Your task to perform on an android device: Turn off the flashlight Image 0: 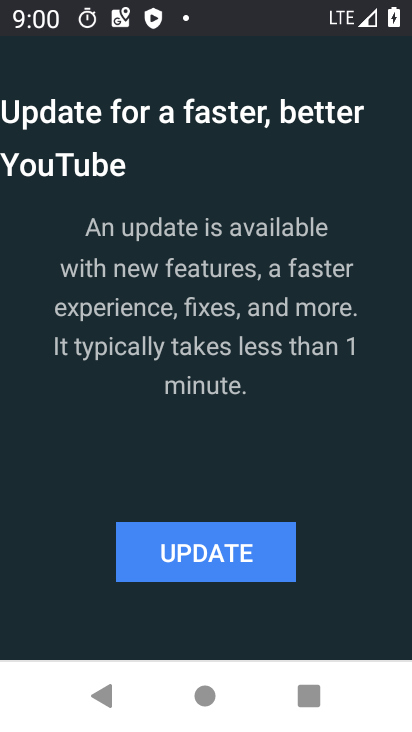
Step 0: press home button
Your task to perform on an android device: Turn off the flashlight Image 1: 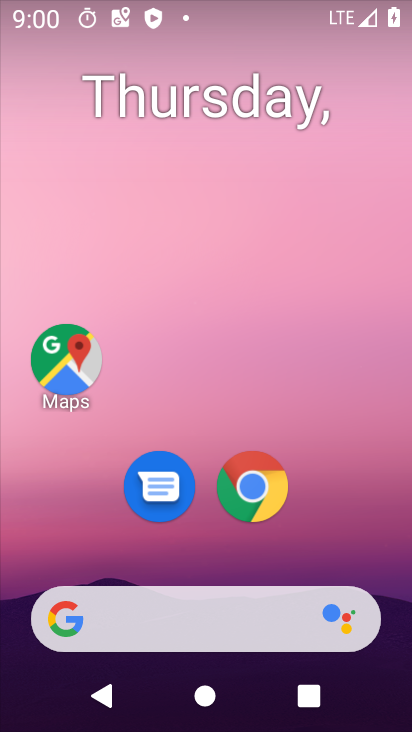
Step 1: task complete